Your task to perform on an android device: Open Yahoo.com Image 0: 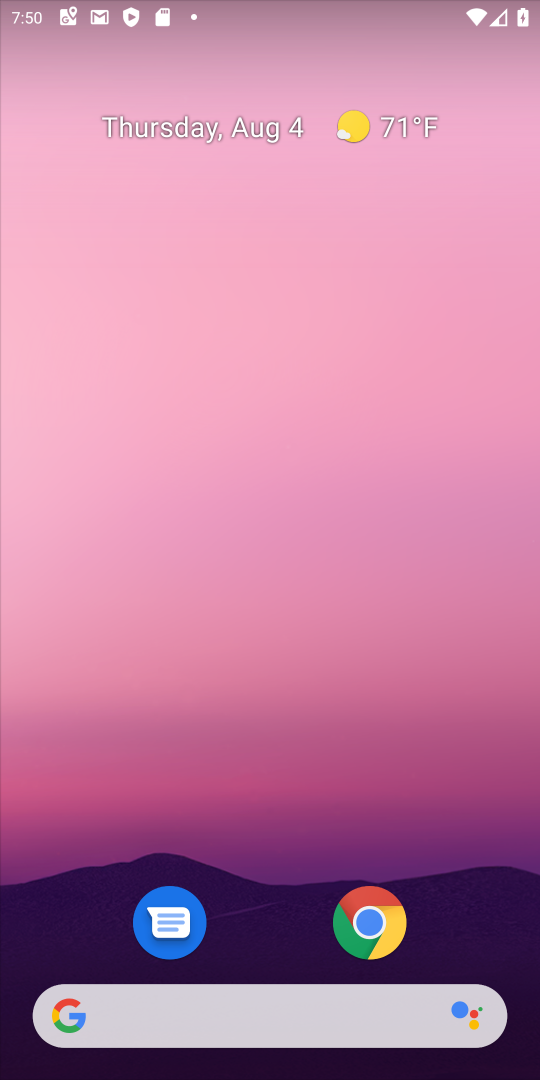
Step 0: click (400, 924)
Your task to perform on an android device: Open Yahoo.com Image 1: 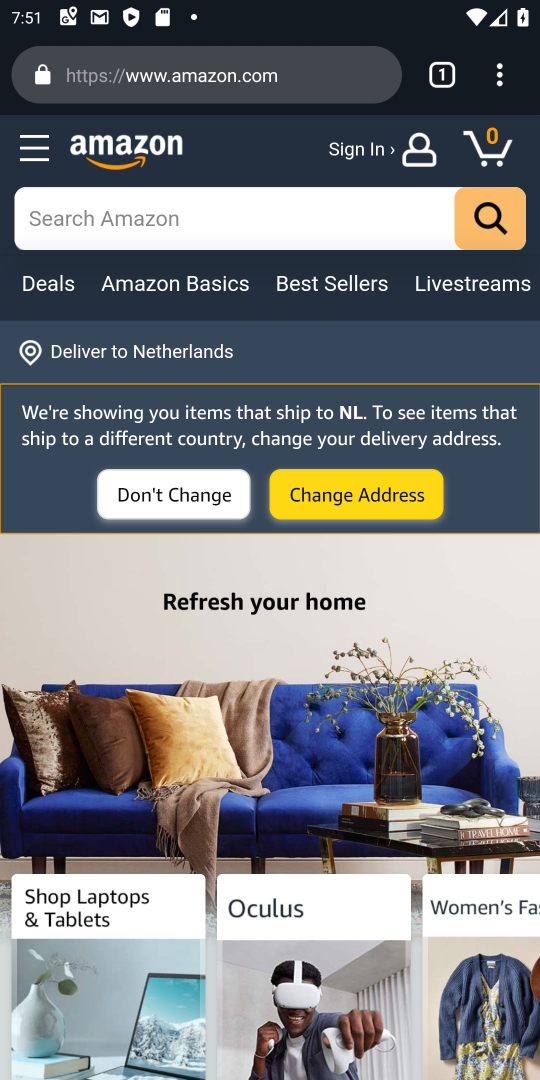
Step 1: click (256, 80)
Your task to perform on an android device: Open Yahoo.com Image 2: 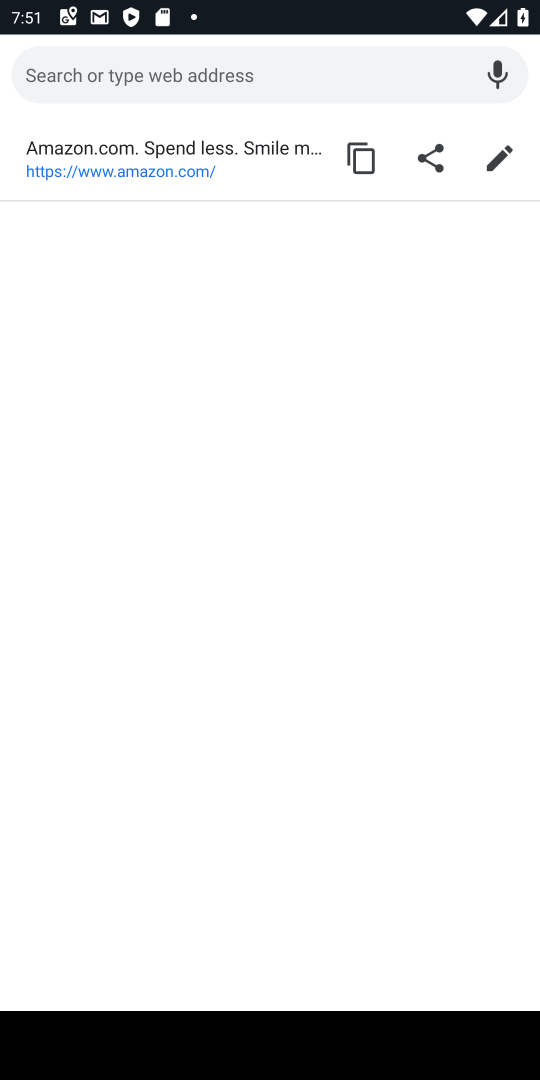
Step 2: type "yahoo.com"
Your task to perform on an android device: Open Yahoo.com Image 3: 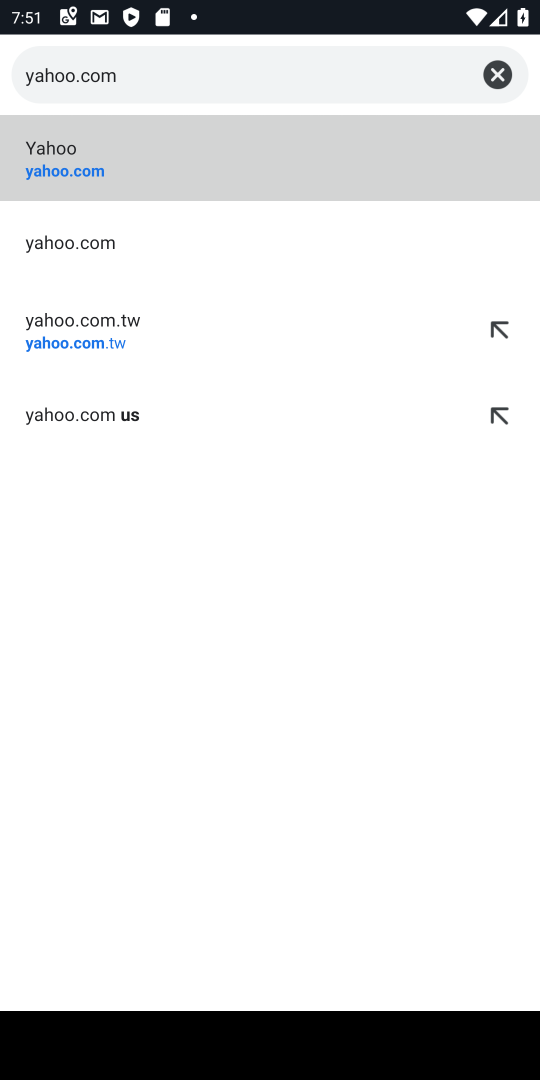
Step 3: click (83, 149)
Your task to perform on an android device: Open Yahoo.com Image 4: 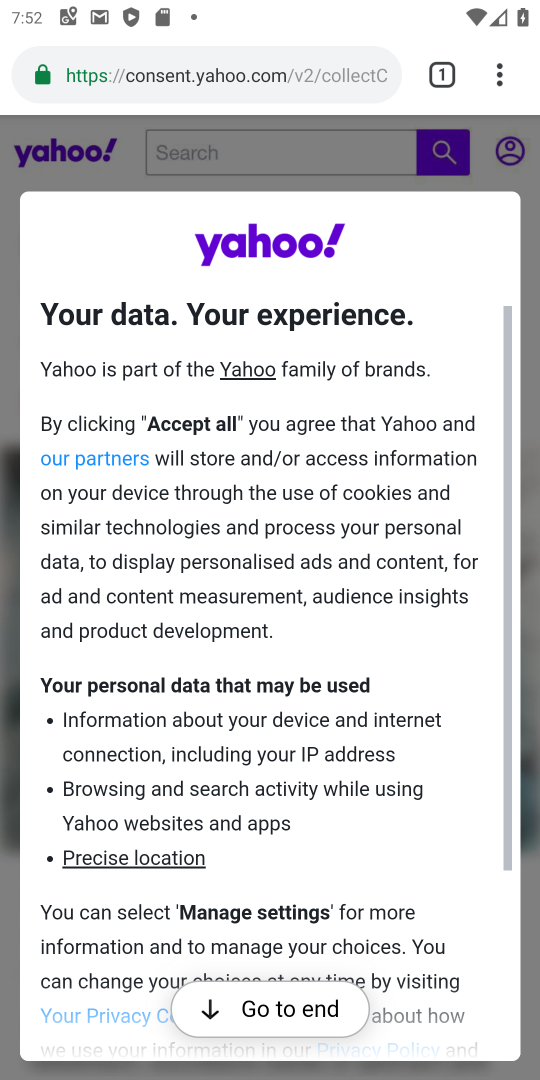
Step 4: task complete